Your task to perform on an android device: What's on my calendar today? Image 0: 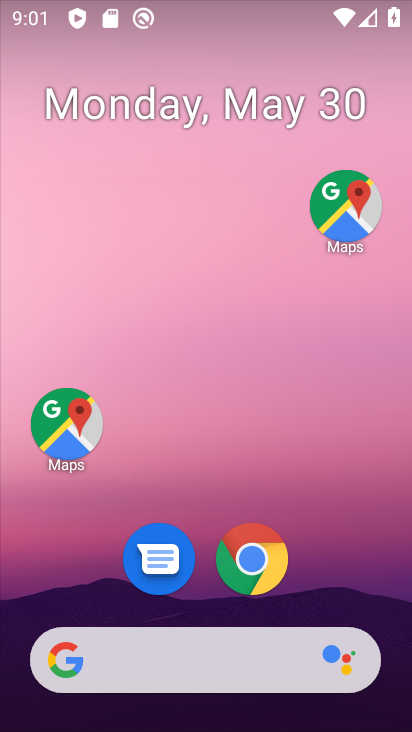
Step 0: drag from (357, 585) to (307, 128)
Your task to perform on an android device: What's on my calendar today? Image 1: 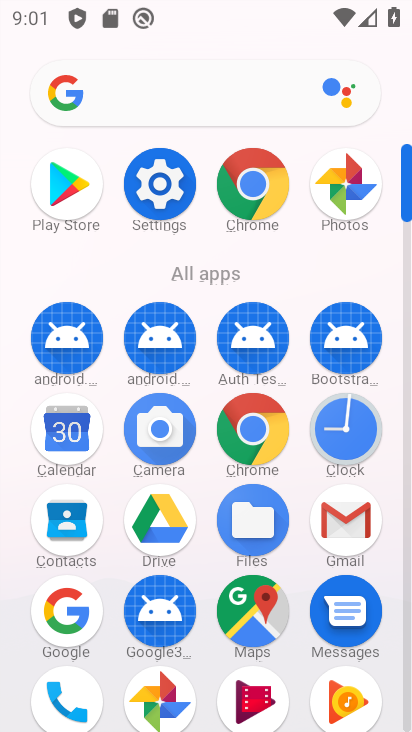
Step 1: click (67, 427)
Your task to perform on an android device: What's on my calendar today? Image 2: 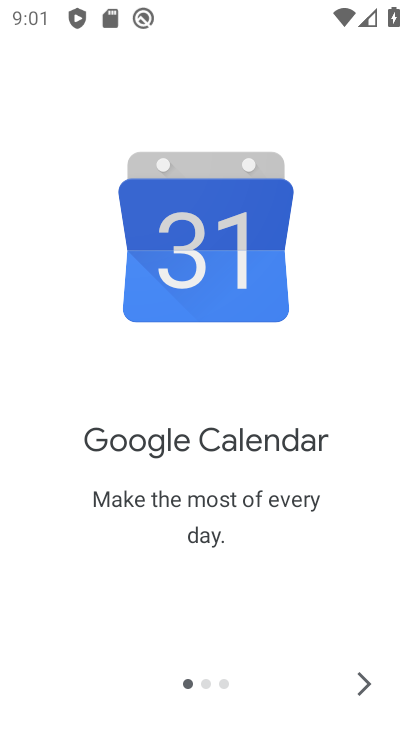
Step 2: click (357, 694)
Your task to perform on an android device: What's on my calendar today? Image 3: 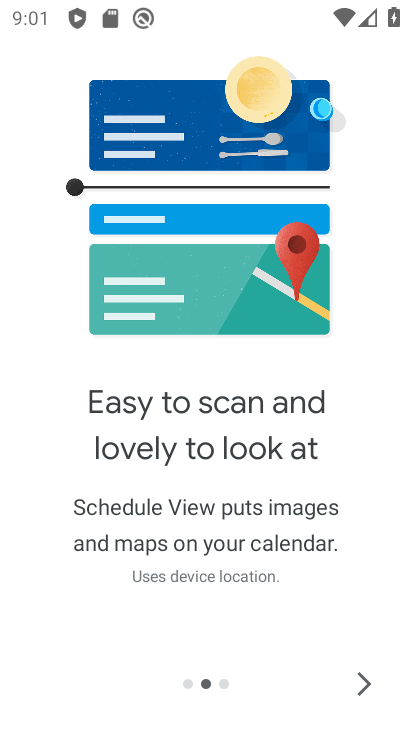
Step 3: click (357, 693)
Your task to perform on an android device: What's on my calendar today? Image 4: 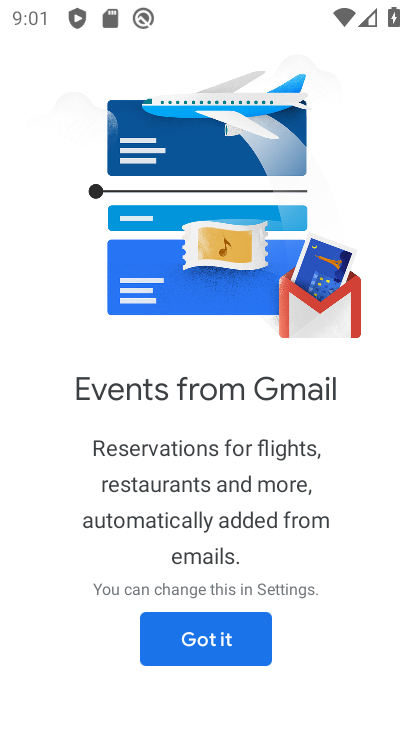
Step 4: click (230, 640)
Your task to perform on an android device: What's on my calendar today? Image 5: 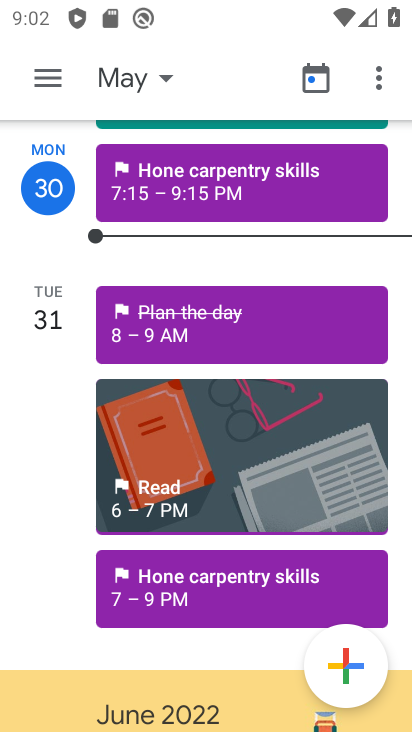
Step 5: task complete